Your task to perform on an android device: Open Yahoo.com Image 0: 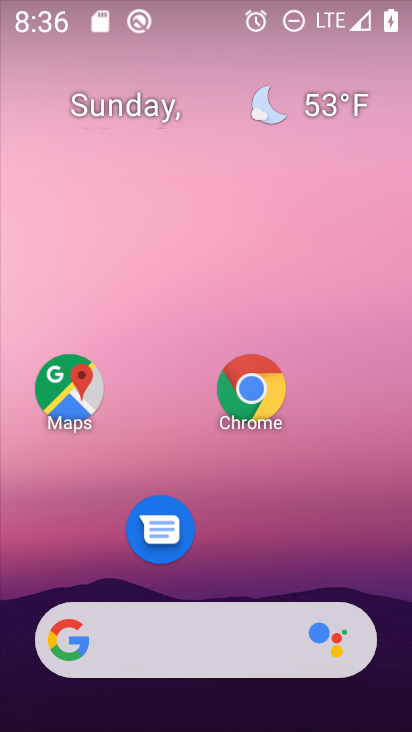
Step 0: click (264, 383)
Your task to perform on an android device: Open Yahoo.com Image 1: 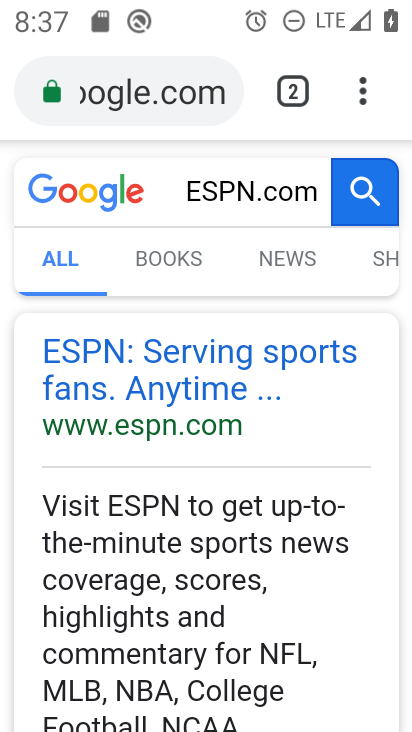
Step 1: click (358, 93)
Your task to perform on an android device: Open Yahoo.com Image 2: 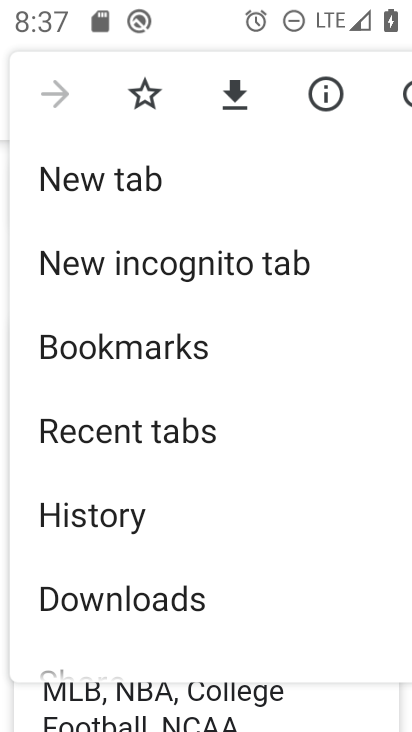
Step 2: click (142, 175)
Your task to perform on an android device: Open Yahoo.com Image 3: 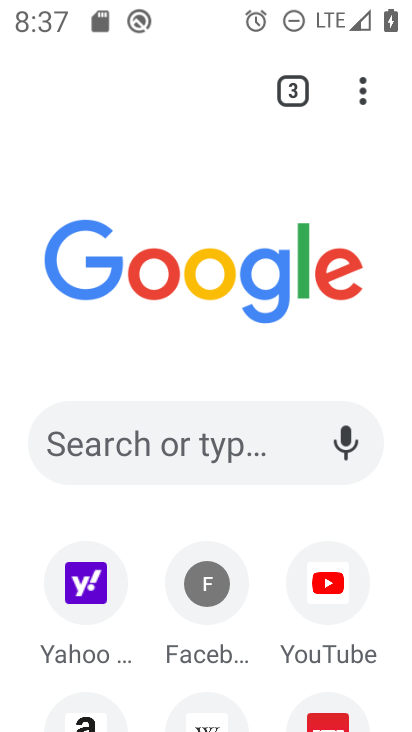
Step 3: click (220, 444)
Your task to perform on an android device: Open Yahoo.com Image 4: 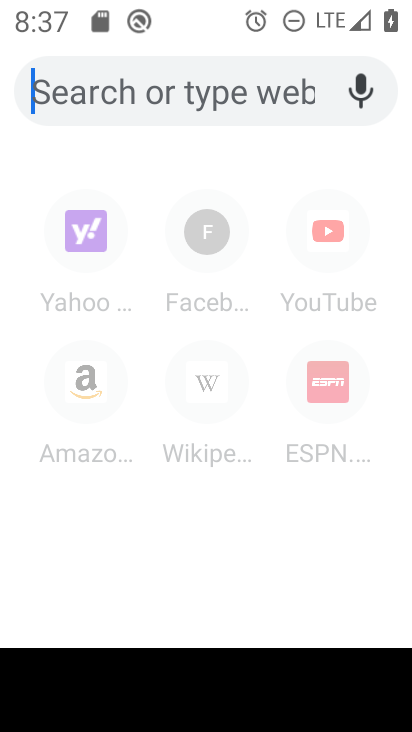
Step 4: click (91, 237)
Your task to perform on an android device: Open Yahoo.com Image 5: 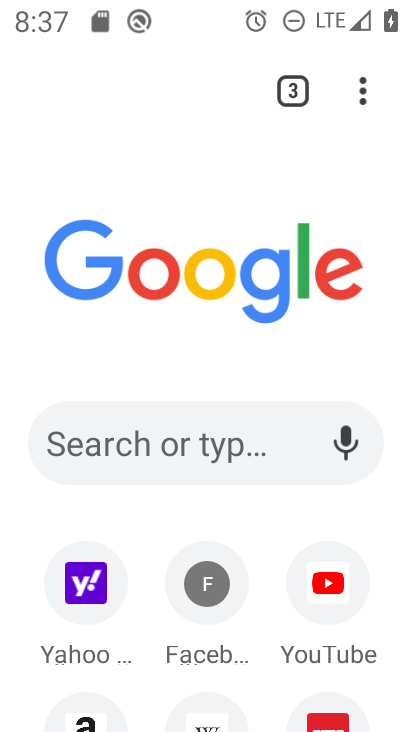
Step 5: click (72, 615)
Your task to perform on an android device: Open Yahoo.com Image 6: 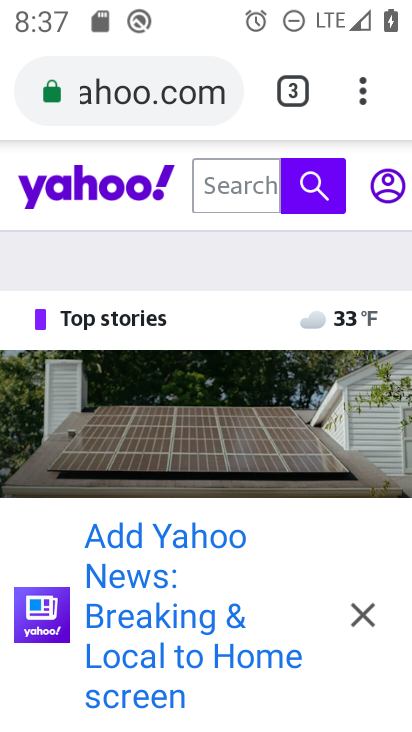
Step 6: task complete